Your task to perform on an android device: set the timer Image 0: 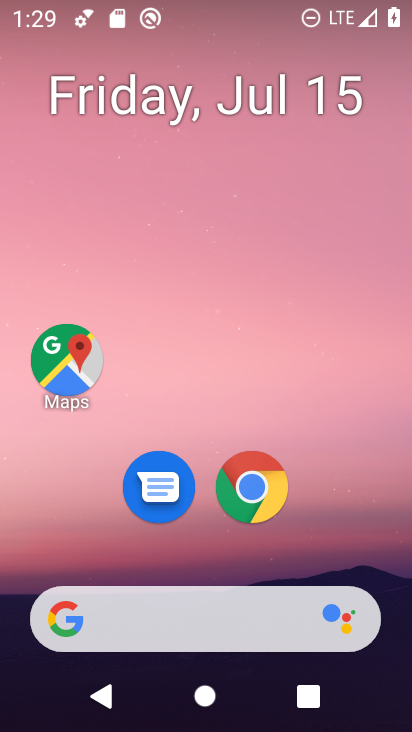
Step 0: drag from (210, 648) to (266, 205)
Your task to perform on an android device: set the timer Image 1: 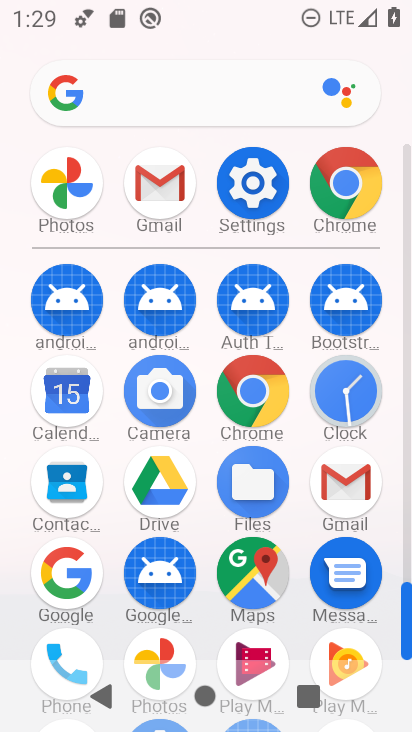
Step 1: drag from (160, 476) to (215, 216)
Your task to perform on an android device: set the timer Image 2: 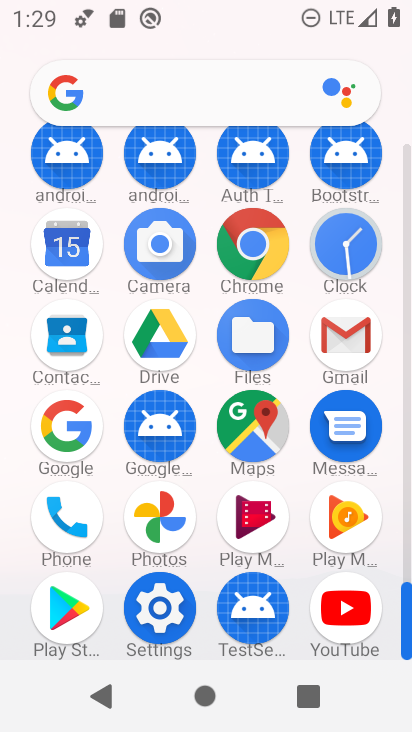
Step 2: click (345, 258)
Your task to perform on an android device: set the timer Image 3: 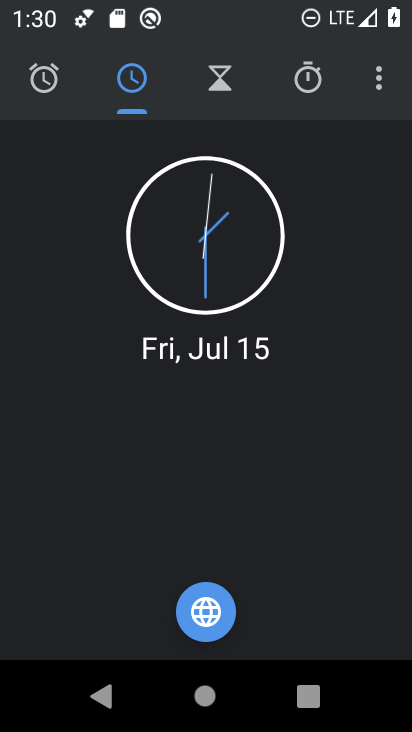
Step 3: click (316, 92)
Your task to perform on an android device: set the timer Image 4: 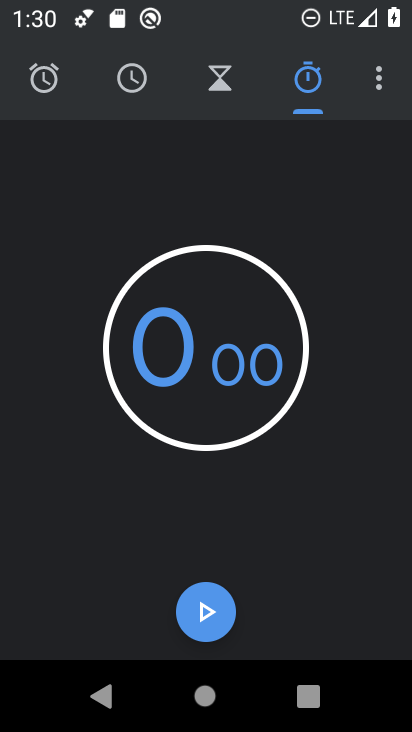
Step 4: click (231, 101)
Your task to perform on an android device: set the timer Image 5: 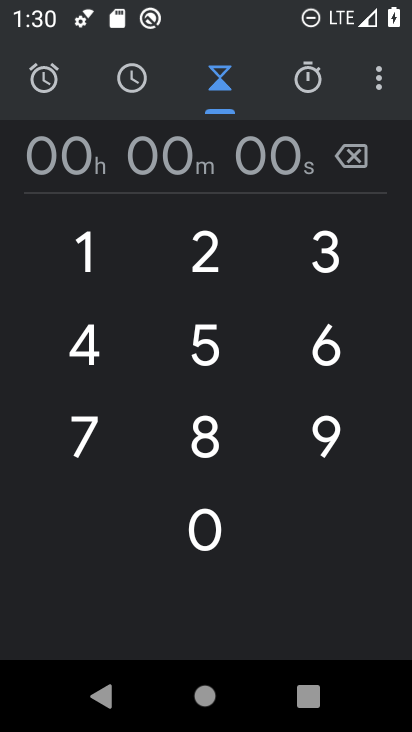
Step 5: click (224, 254)
Your task to perform on an android device: set the timer Image 6: 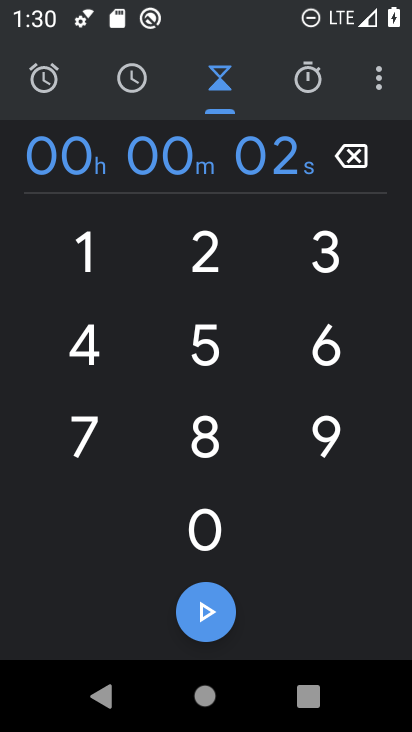
Step 6: click (217, 607)
Your task to perform on an android device: set the timer Image 7: 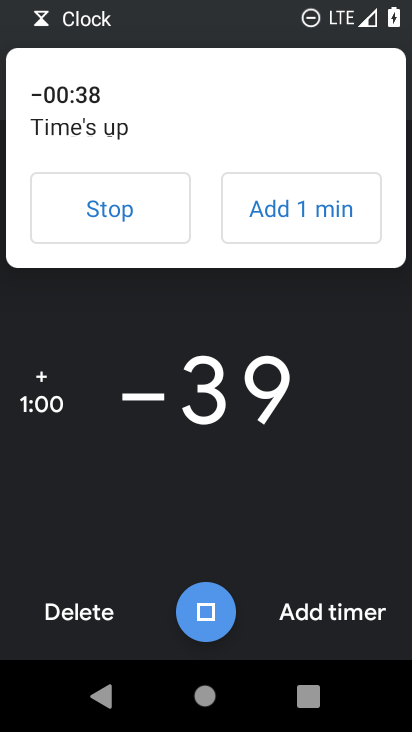
Step 7: task complete